Your task to perform on an android device: open app "HBO Max: Stream TV & Movies" (install if not already installed) and go to login screen Image 0: 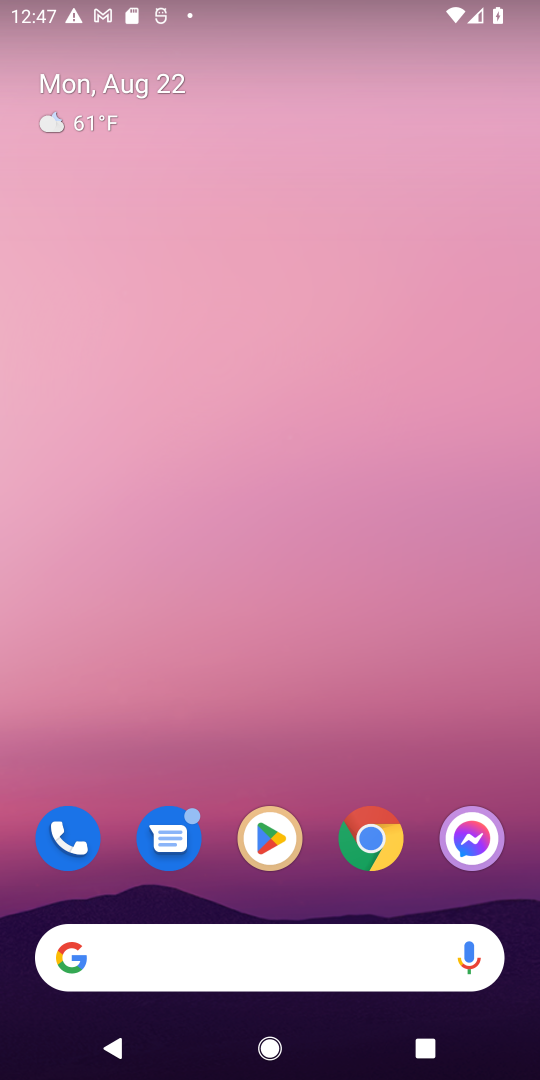
Step 0: click (325, 279)
Your task to perform on an android device: open app "HBO Max: Stream TV & Movies" (install if not already installed) and go to login screen Image 1: 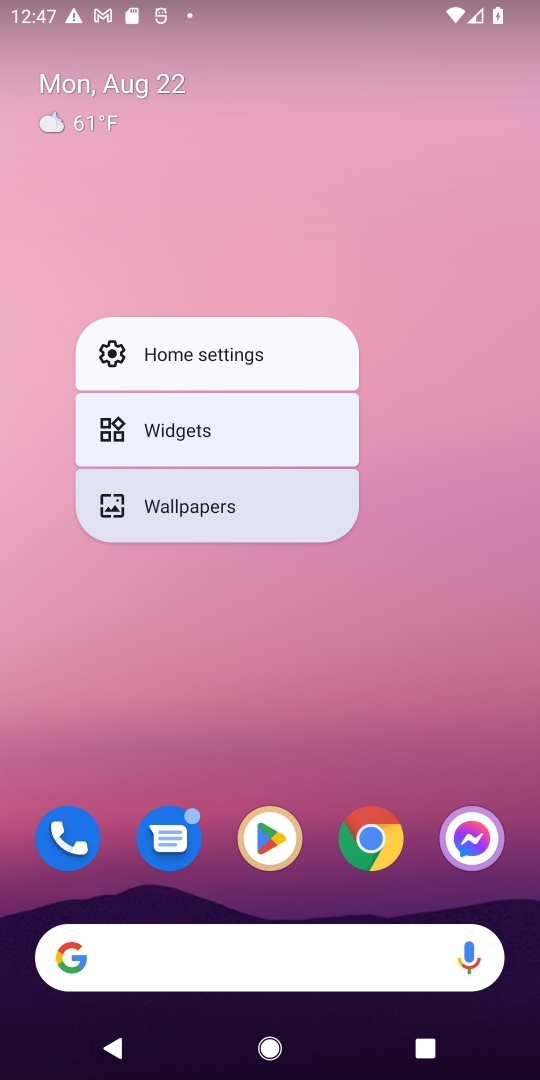
Step 1: click (239, 685)
Your task to perform on an android device: open app "HBO Max: Stream TV & Movies" (install if not already installed) and go to login screen Image 2: 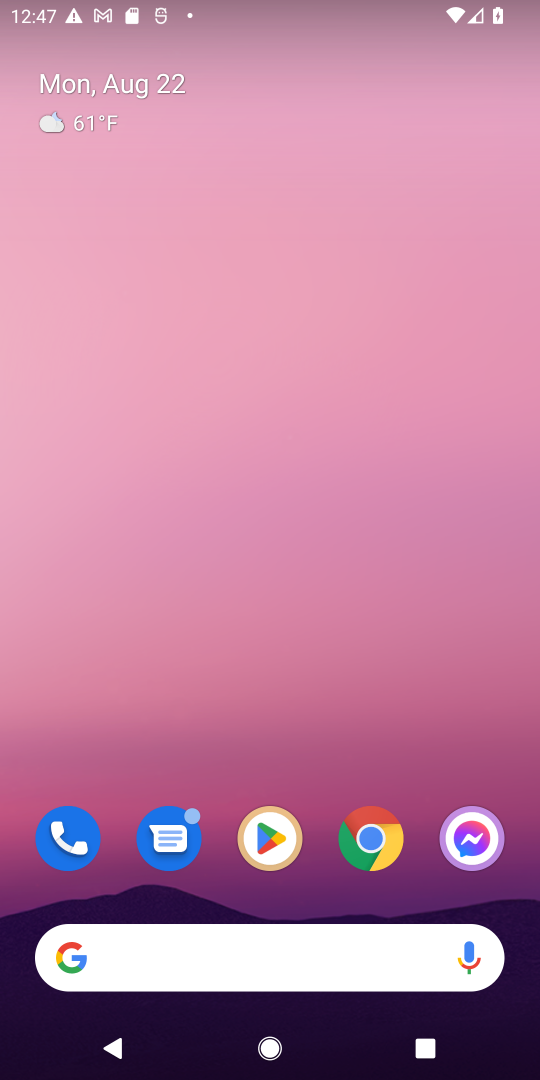
Step 2: drag from (247, 393) to (220, 48)
Your task to perform on an android device: open app "HBO Max: Stream TV & Movies" (install if not already installed) and go to login screen Image 3: 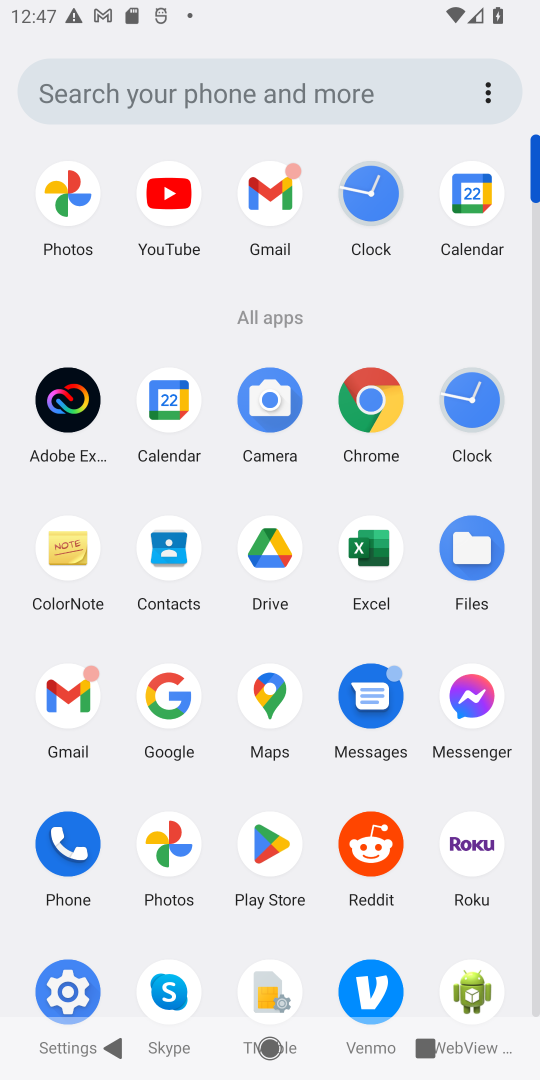
Step 3: click (263, 852)
Your task to perform on an android device: open app "HBO Max: Stream TV & Movies" (install if not already installed) and go to login screen Image 4: 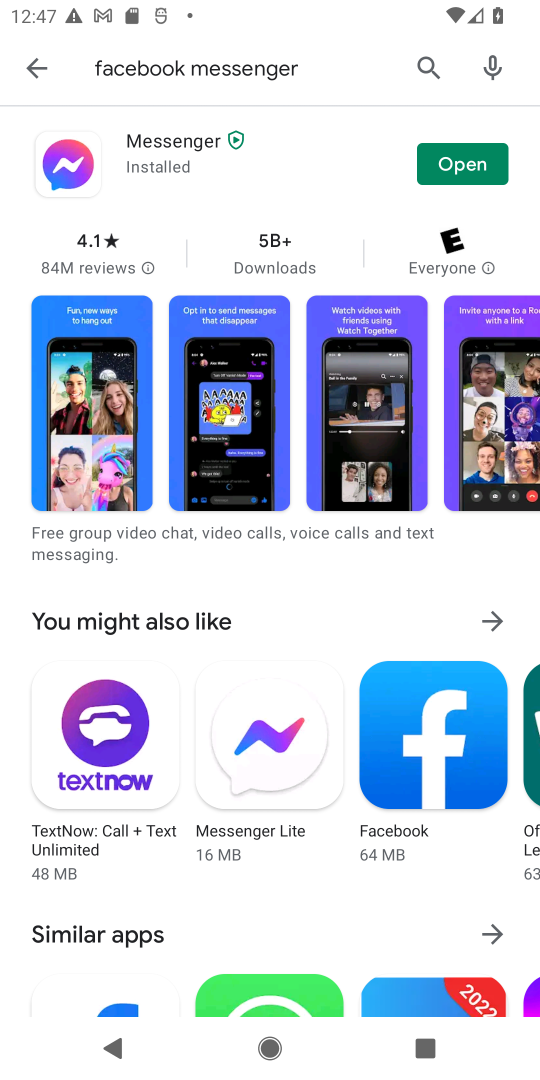
Step 4: click (428, 64)
Your task to perform on an android device: open app "HBO Max: Stream TV & Movies" (install if not already installed) and go to login screen Image 5: 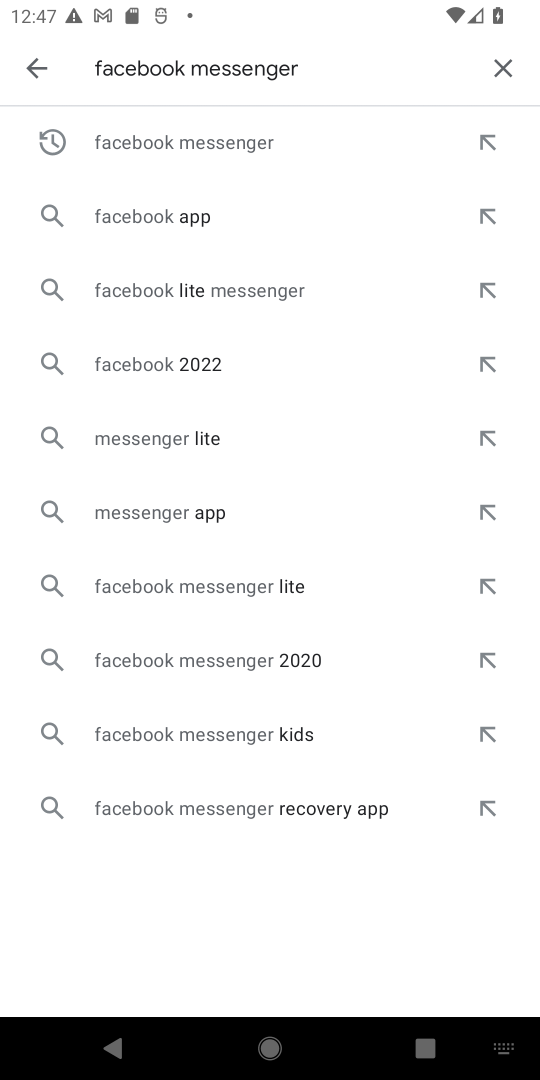
Step 5: click (493, 75)
Your task to perform on an android device: open app "HBO Max: Stream TV & Movies" (install if not already installed) and go to login screen Image 6: 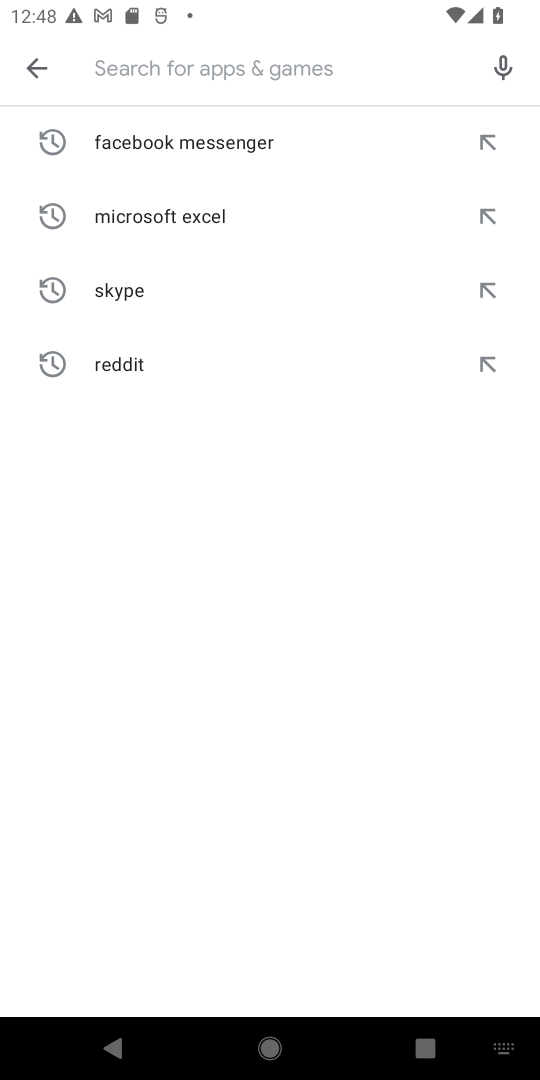
Step 6: type "HBO Max: Stream TV & Movies"
Your task to perform on an android device: open app "HBO Max: Stream TV & Movies" (install if not already installed) and go to login screen Image 7: 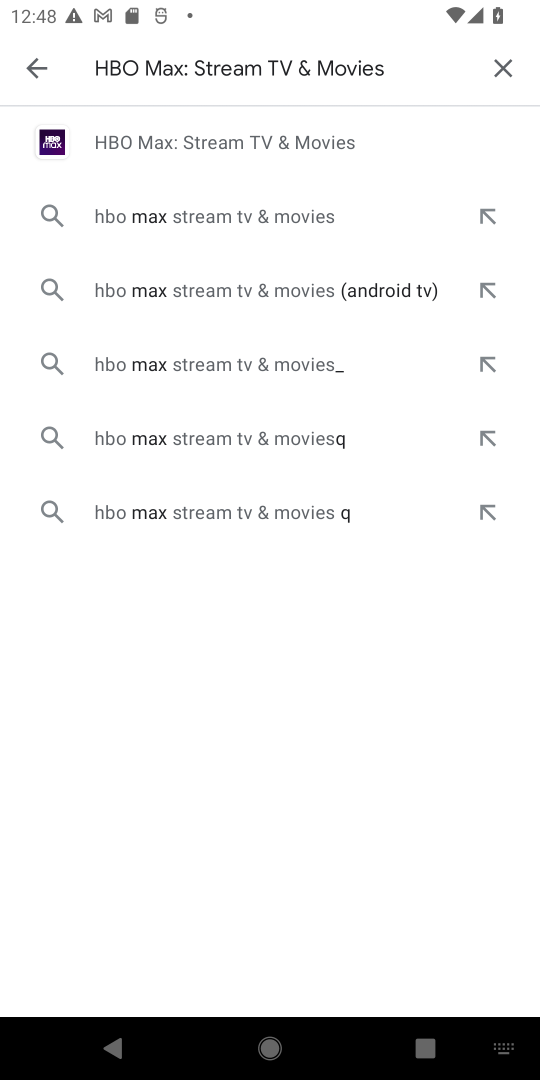
Step 7: click (272, 146)
Your task to perform on an android device: open app "HBO Max: Stream TV & Movies" (install if not already installed) and go to login screen Image 8: 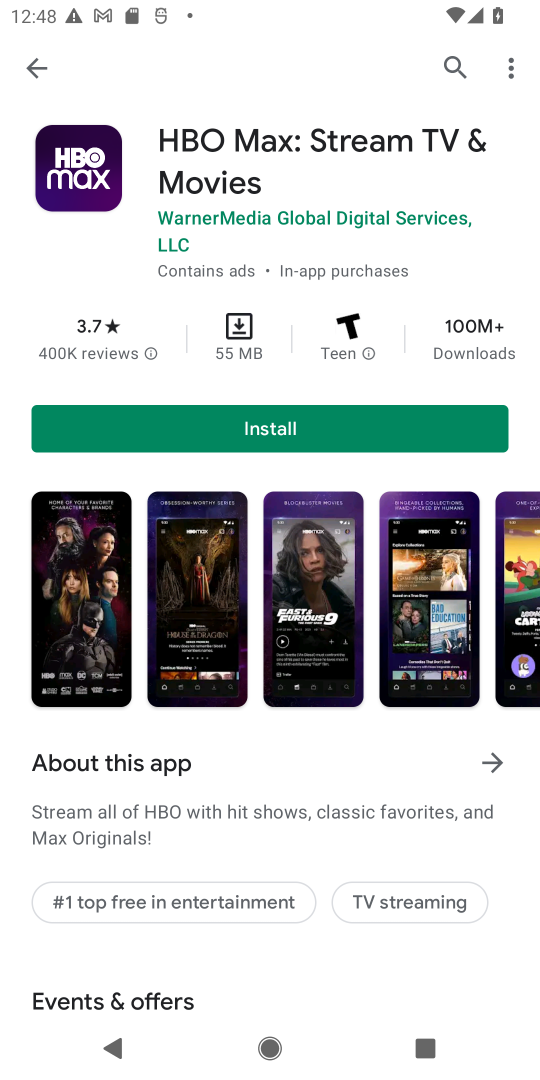
Step 8: click (296, 426)
Your task to perform on an android device: open app "HBO Max: Stream TV & Movies" (install if not already installed) and go to login screen Image 9: 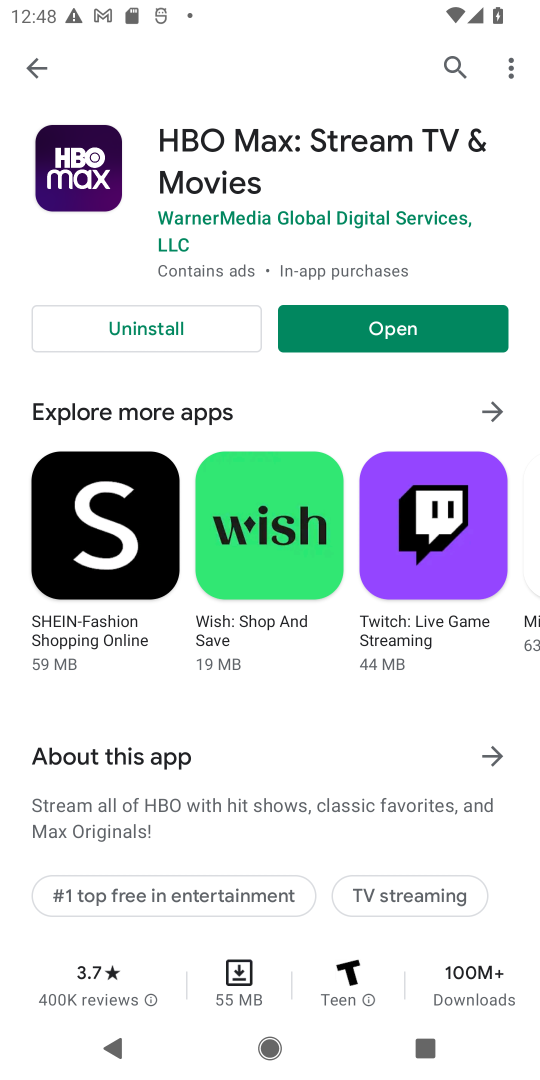
Step 9: click (397, 327)
Your task to perform on an android device: open app "HBO Max: Stream TV & Movies" (install if not already installed) and go to login screen Image 10: 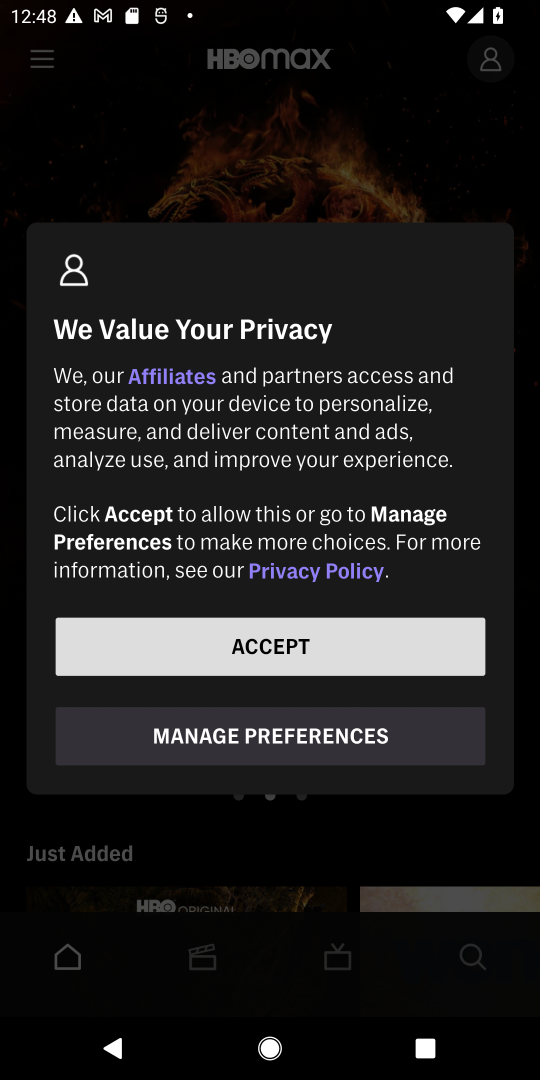
Step 10: task complete